Your task to perform on an android device: see sites visited before in the chrome app Image 0: 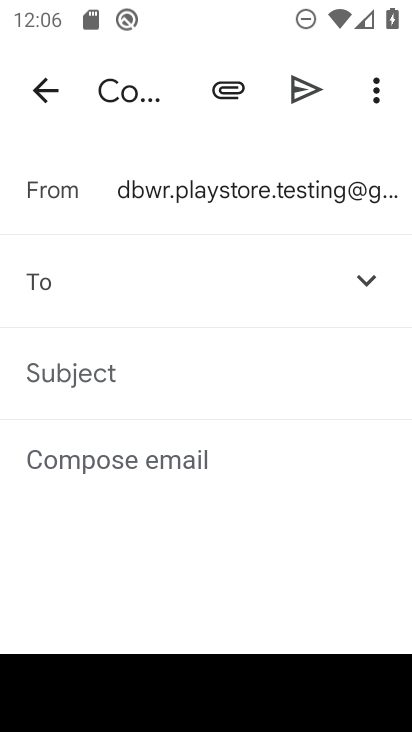
Step 0: press home button
Your task to perform on an android device: see sites visited before in the chrome app Image 1: 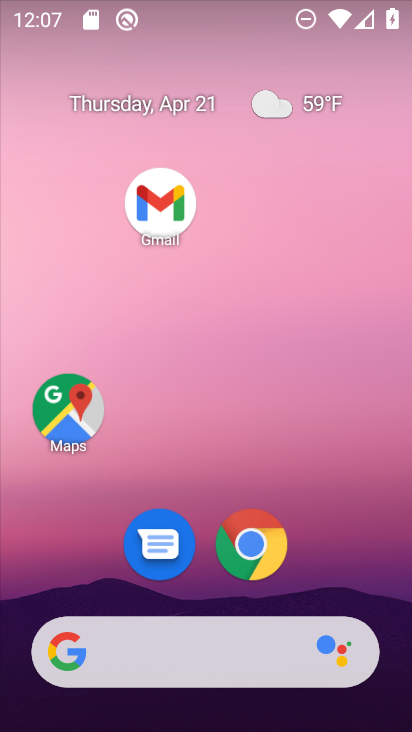
Step 1: click (260, 567)
Your task to perform on an android device: see sites visited before in the chrome app Image 2: 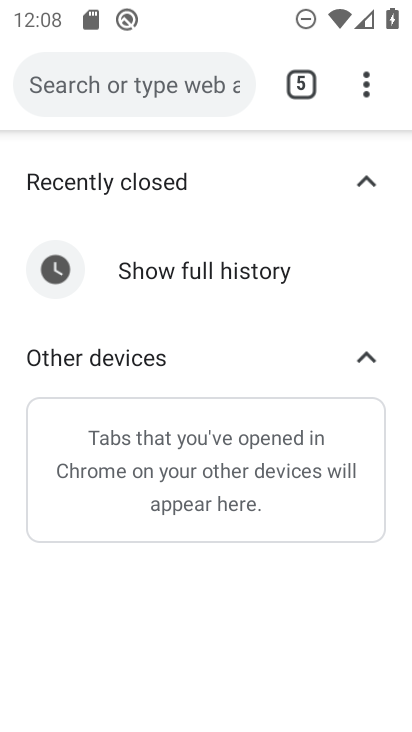
Step 2: click (369, 87)
Your task to perform on an android device: see sites visited before in the chrome app Image 3: 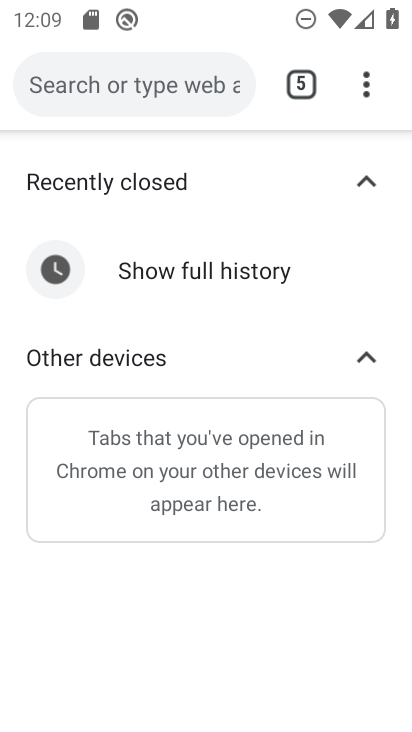
Step 3: click (374, 79)
Your task to perform on an android device: see sites visited before in the chrome app Image 4: 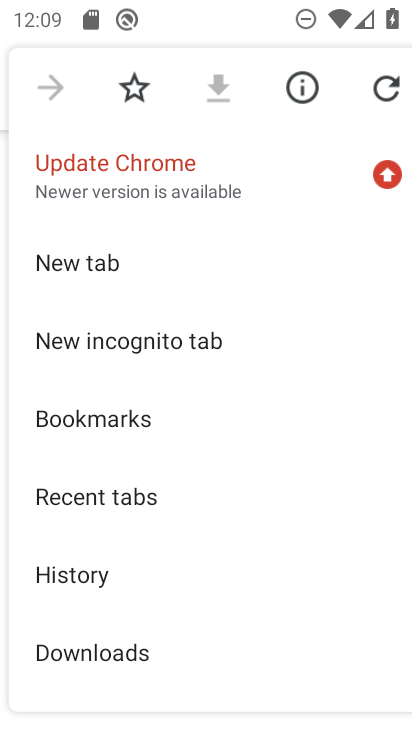
Step 4: drag from (155, 483) to (210, 219)
Your task to perform on an android device: see sites visited before in the chrome app Image 5: 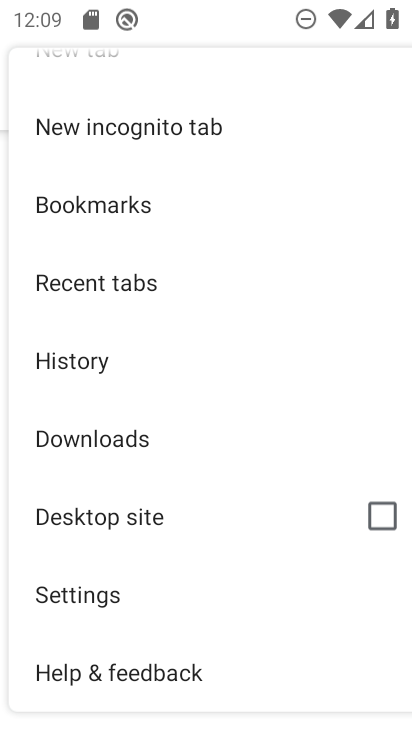
Step 5: click (199, 292)
Your task to perform on an android device: see sites visited before in the chrome app Image 6: 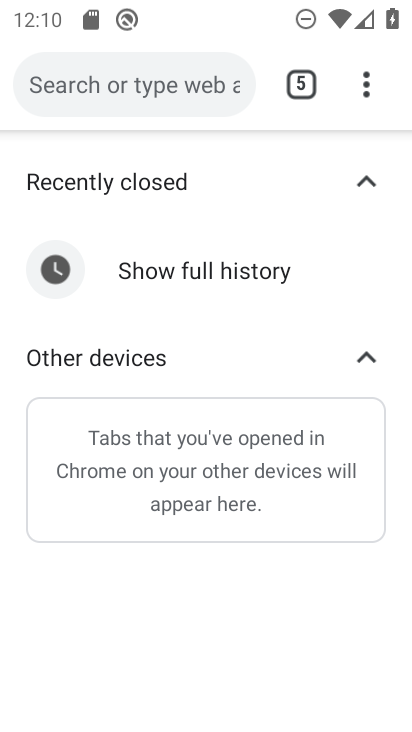
Step 6: task complete